Your task to perform on an android device: open a bookmark in the chrome app Image 0: 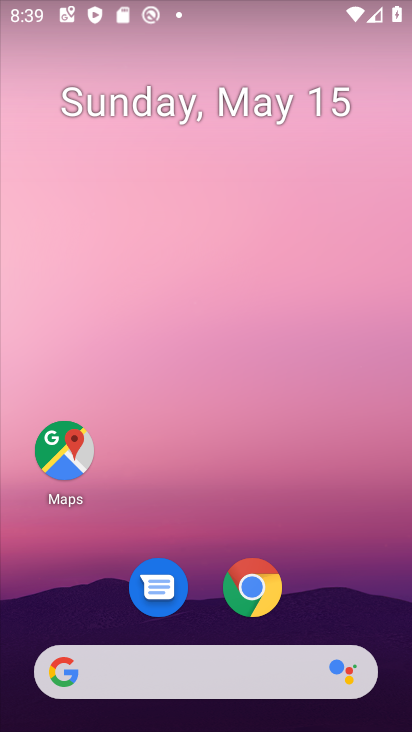
Step 0: drag from (370, 642) to (233, 117)
Your task to perform on an android device: open a bookmark in the chrome app Image 1: 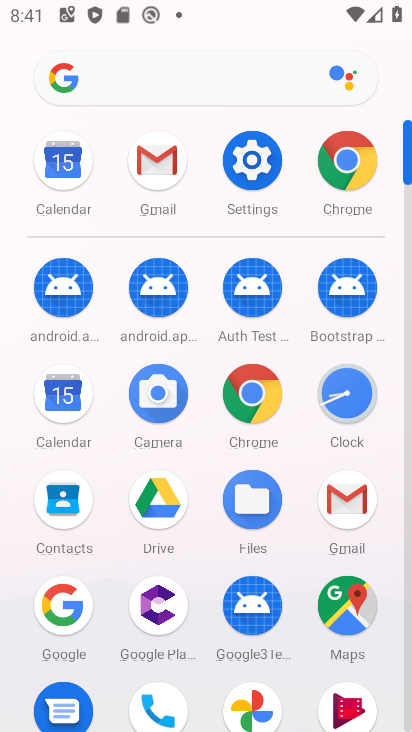
Step 1: click (347, 155)
Your task to perform on an android device: open a bookmark in the chrome app Image 2: 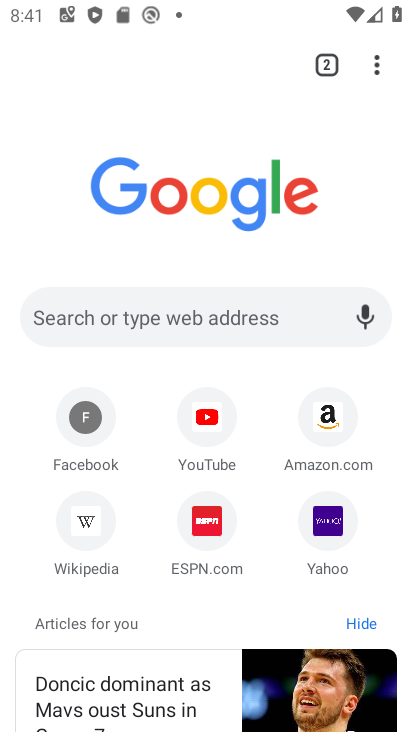
Step 2: click (375, 65)
Your task to perform on an android device: open a bookmark in the chrome app Image 3: 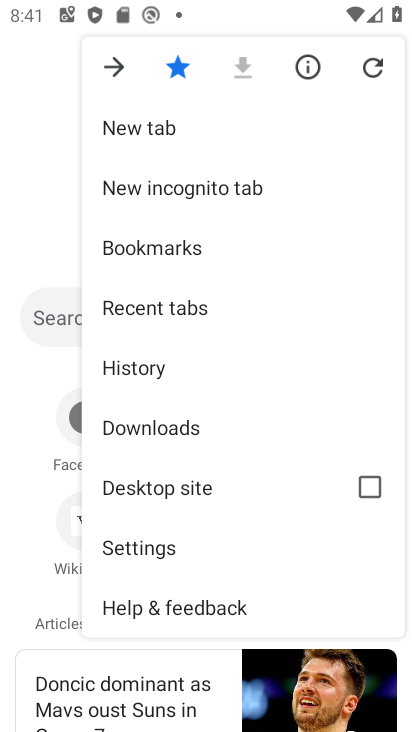
Step 3: click (189, 256)
Your task to perform on an android device: open a bookmark in the chrome app Image 4: 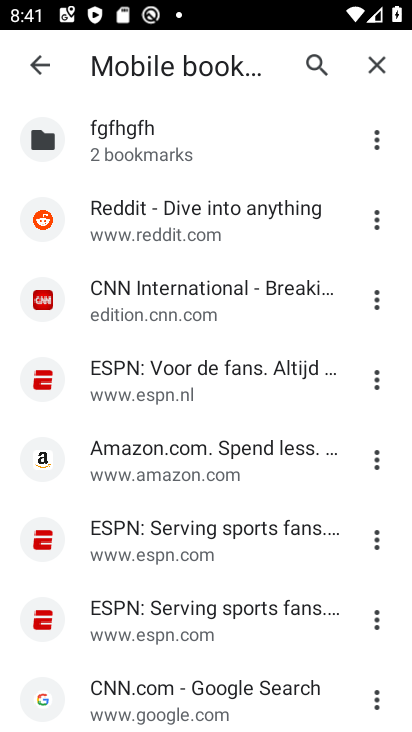
Step 4: task complete